Your task to perform on an android device: Add "dell xps" to the cart on target.com, then select checkout. Image 0: 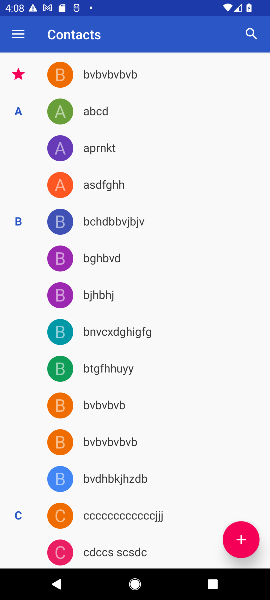
Step 0: press home button
Your task to perform on an android device: Add "dell xps" to the cart on target.com, then select checkout. Image 1: 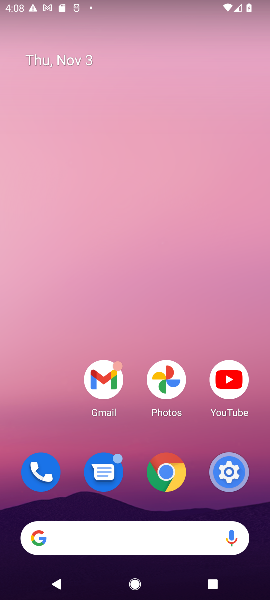
Step 1: click (76, 543)
Your task to perform on an android device: Add "dell xps" to the cart on target.com, then select checkout. Image 2: 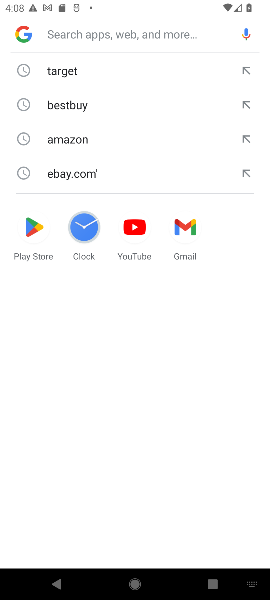
Step 2: click (60, 77)
Your task to perform on an android device: Add "dell xps" to the cart on target.com, then select checkout. Image 3: 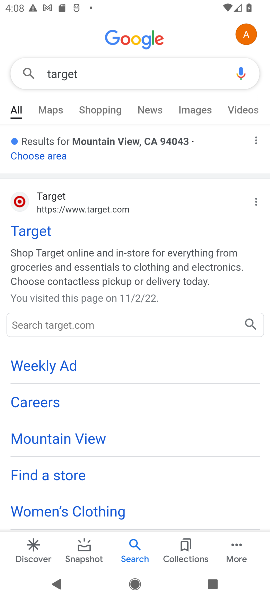
Step 3: click (31, 229)
Your task to perform on an android device: Add "dell xps" to the cart on target.com, then select checkout. Image 4: 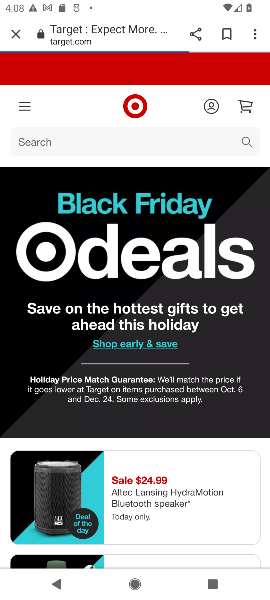
Step 4: task complete